Your task to perform on an android device: Search for vegetarian restaurants on Maps Image 0: 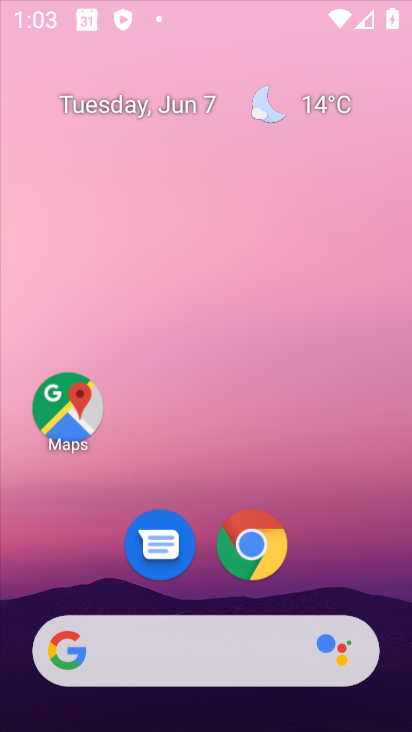
Step 0: drag from (345, 562) to (374, 92)
Your task to perform on an android device: Search for vegetarian restaurants on Maps Image 1: 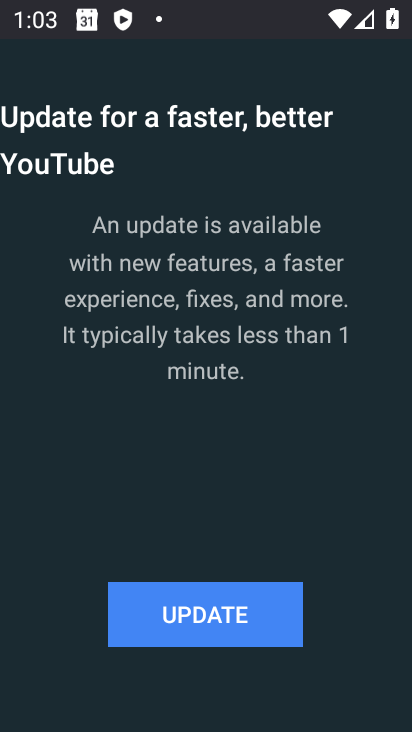
Step 1: press home button
Your task to perform on an android device: Search for vegetarian restaurants on Maps Image 2: 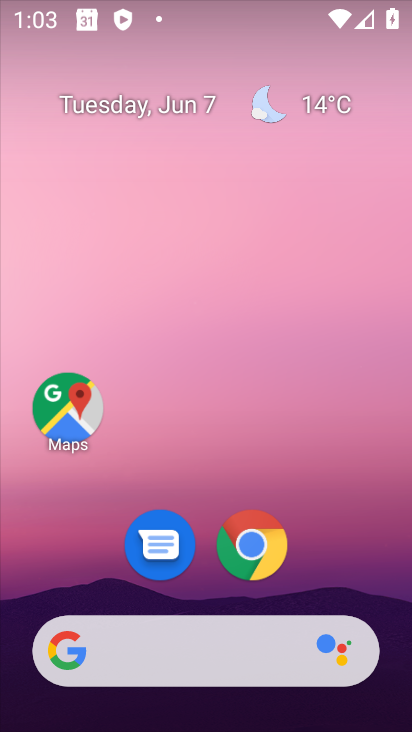
Step 2: drag from (370, 564) to (359, 67)
Your task to perform on an android device: Search for vegetarian restaurants on Maps Image 3: 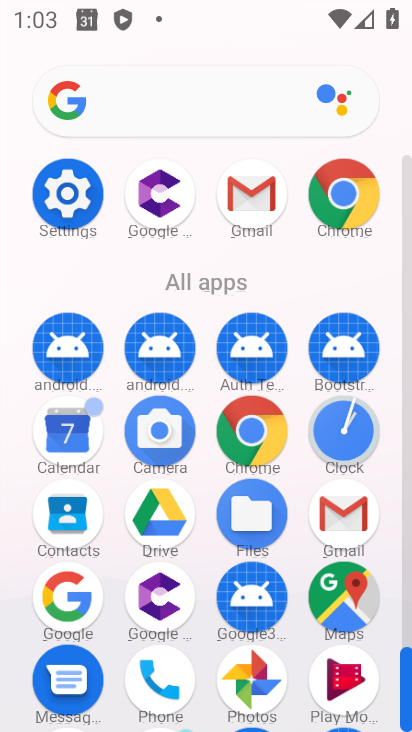
Step 3: click (320, 615)
Your task to perform on an android device: Search for vegetarian restaurants on Maps Image 4: 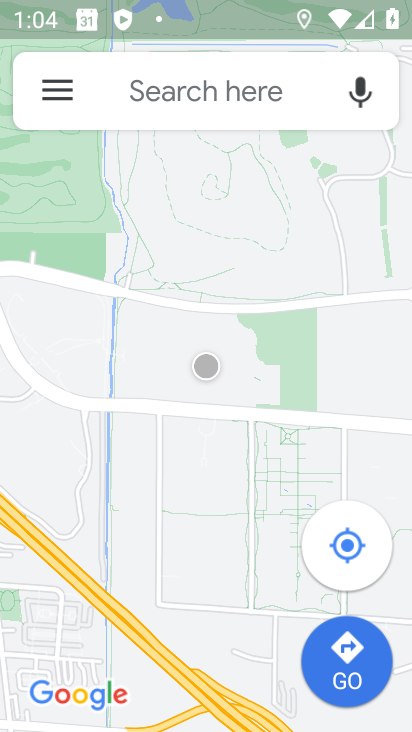
Step 4: click (210, 100)
Your task to perform on an android device: Search for vegetarian restaurants on Maps Image 5: 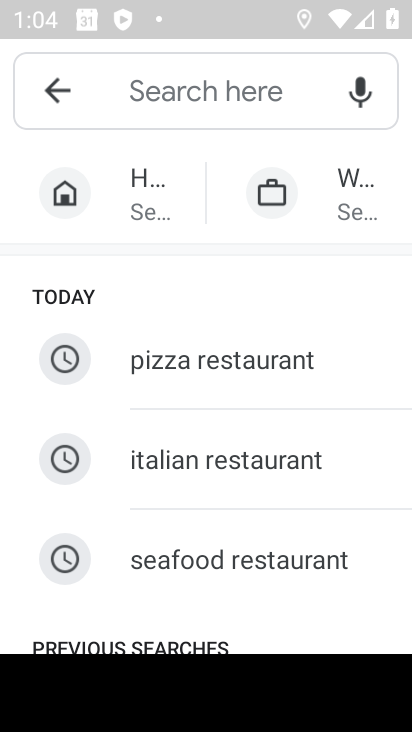
Step 5: type "vegetarian restaurants"
Your task to perform on an android device: Search for vegetarian restaurants on Maps Image 6: 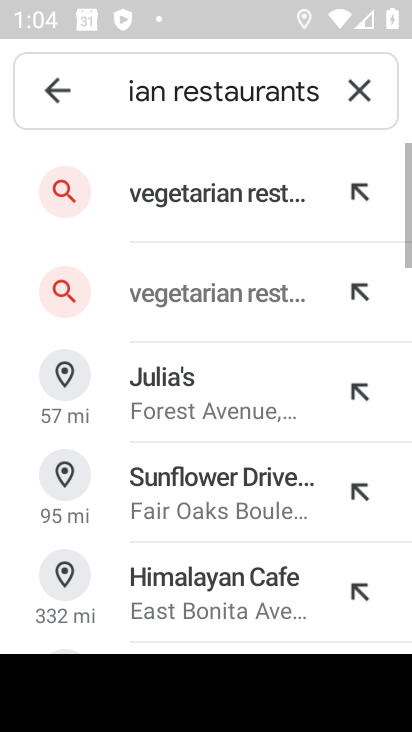
Step 6: click (208, 186)
Your task to perform on an android device: Search for vegetarian restaurants on Maps Image 7: 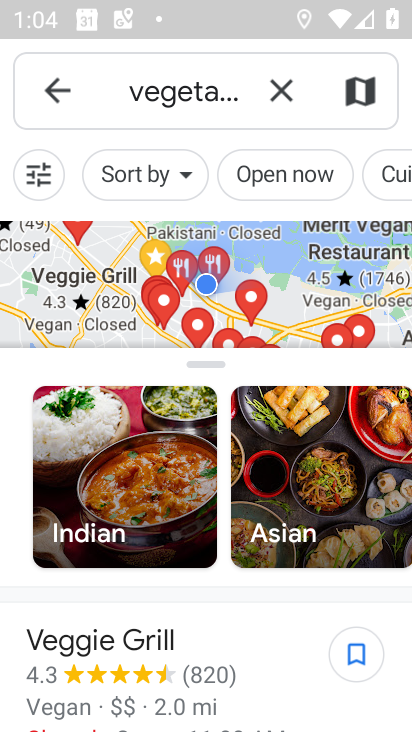
Step 7: task complete